Your task to perform on an android device: clear history in the chrome app Image 0: 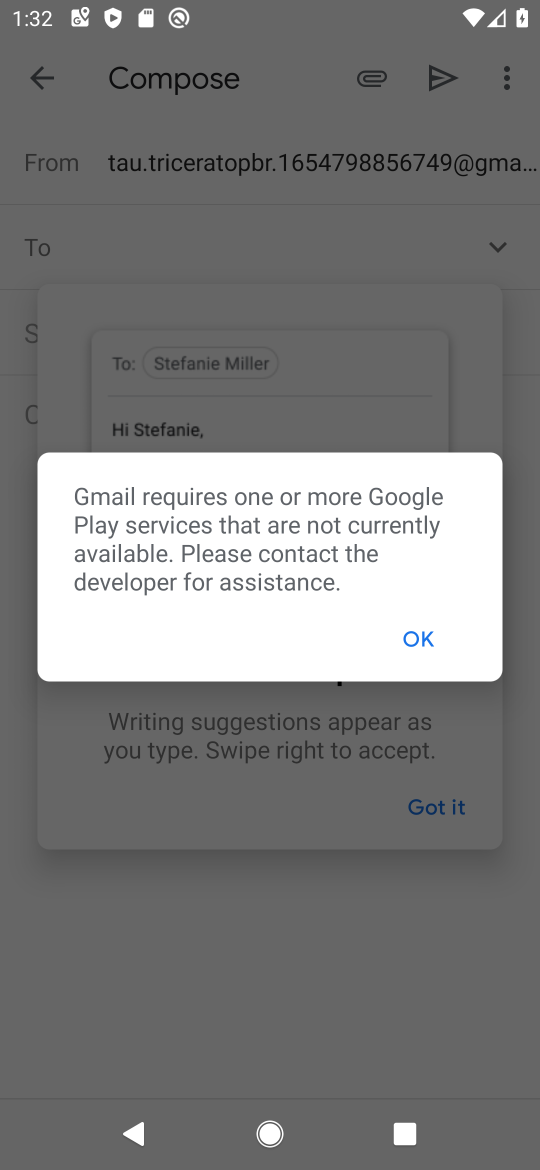
Step 0: press home button
Your task to perform on an android device: clear history in the chrome app Image 1: 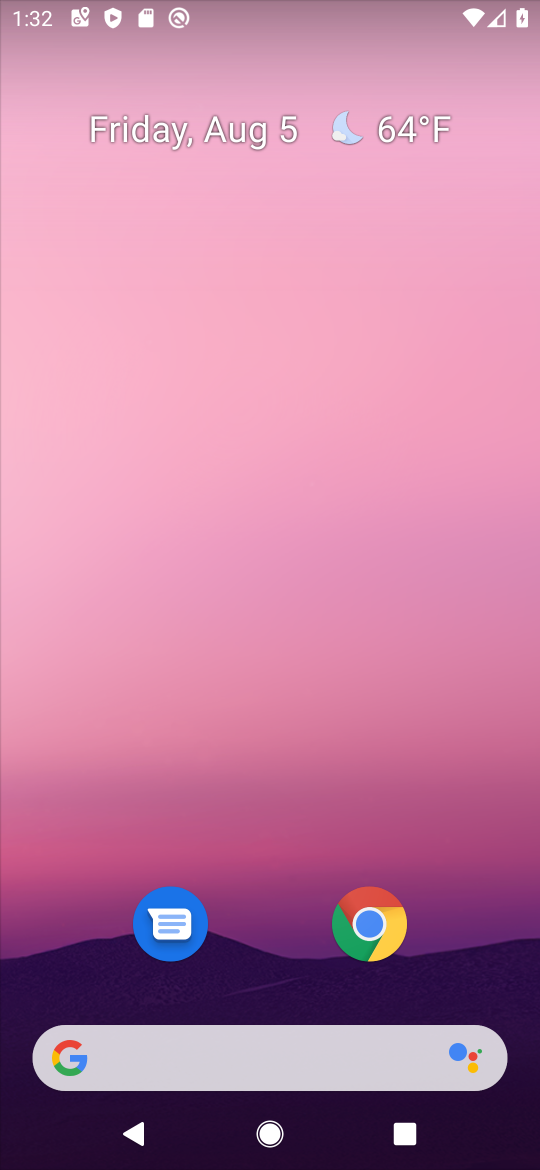
Step 1: click (368, 926)
Your task to perform on an android device: clear history in the chrome app Image 2: 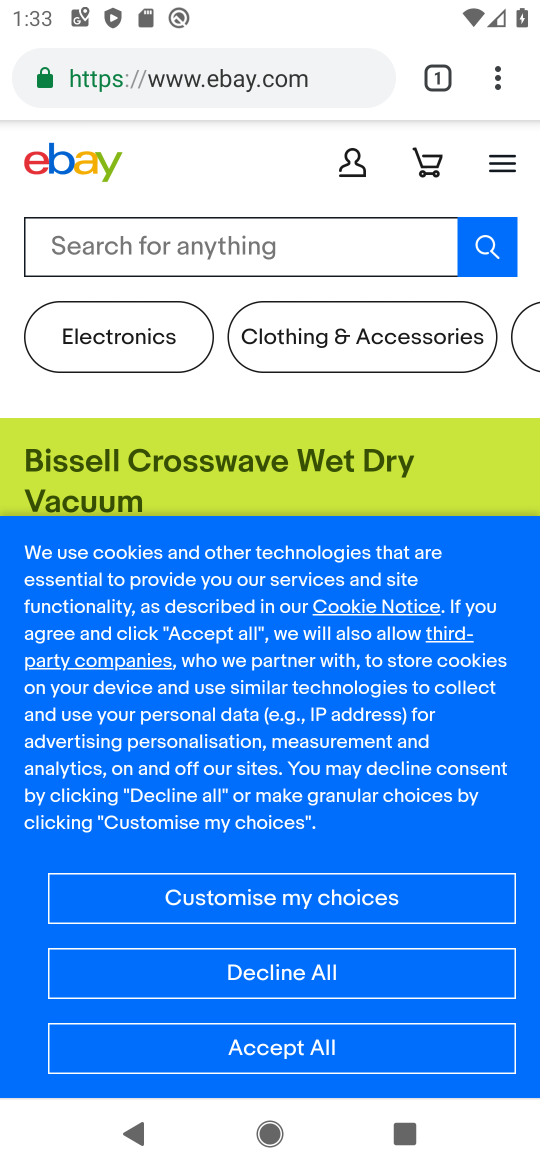
Step 2: click (508, 84)
Your task to perform on an android device: clear history in the chrome app Image 3: 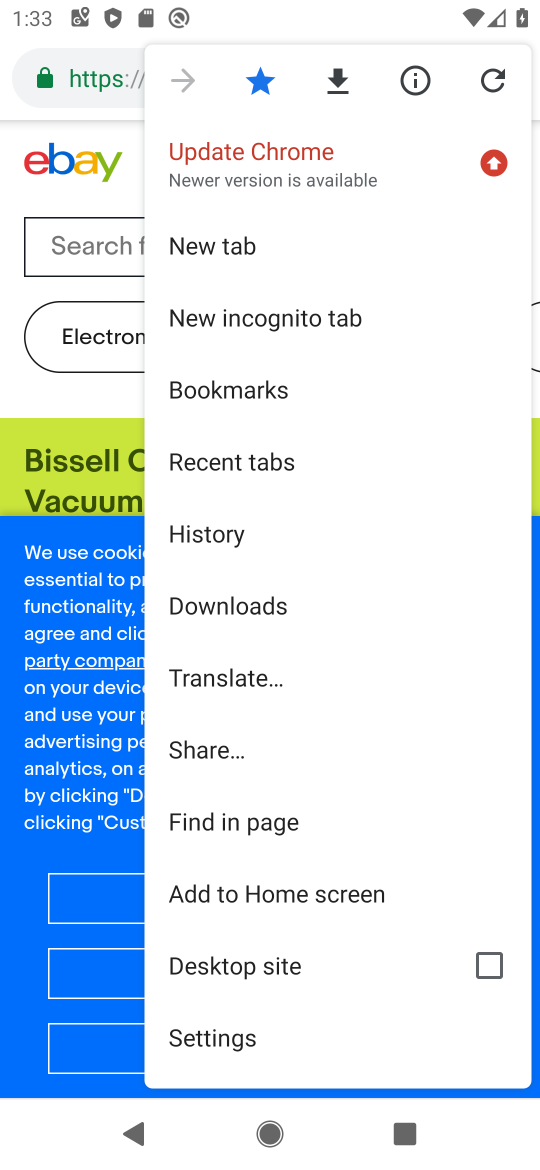
Step 3: click (229, 529)
Your task to perform on an android device: clear history in the chrome app Image 4: 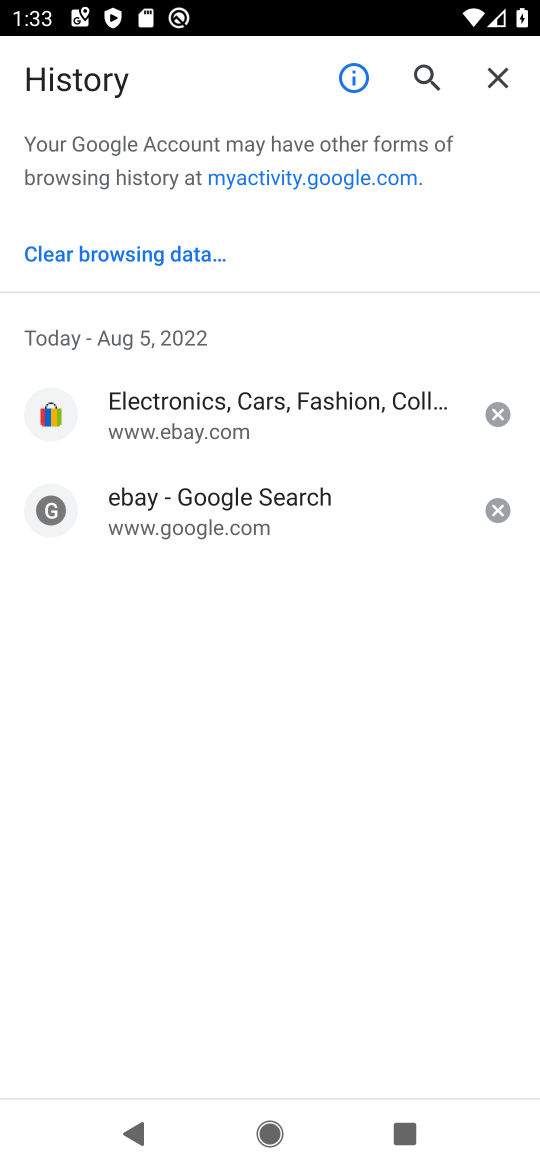
Step 4: click (136, 258)
Your task to perform on an android device: clear history in the chrome app Image 5: 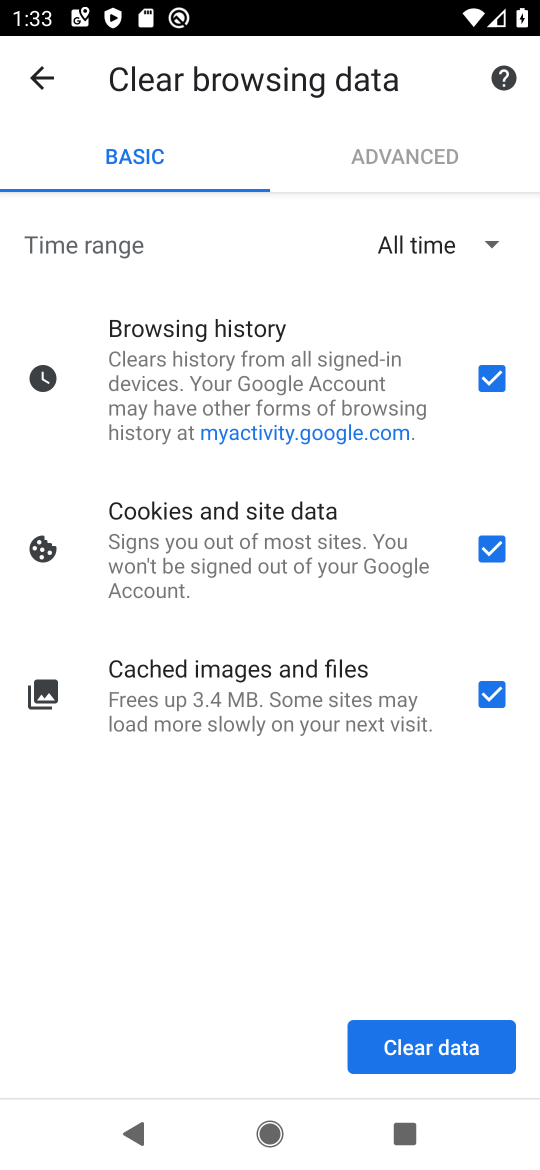
Step 5: click (448, 1053)
Your task to perform on an android device: clear history in the chrome app Image 6: 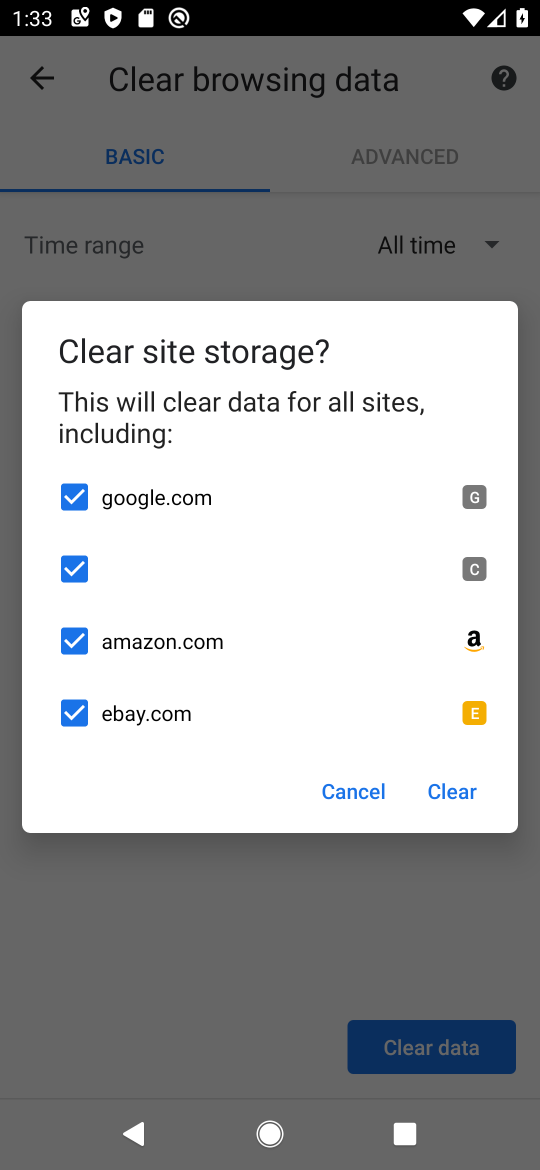
Step 6: click (438, 794)
Your task to perform on an android device: clear history in the chrome app Image 7: 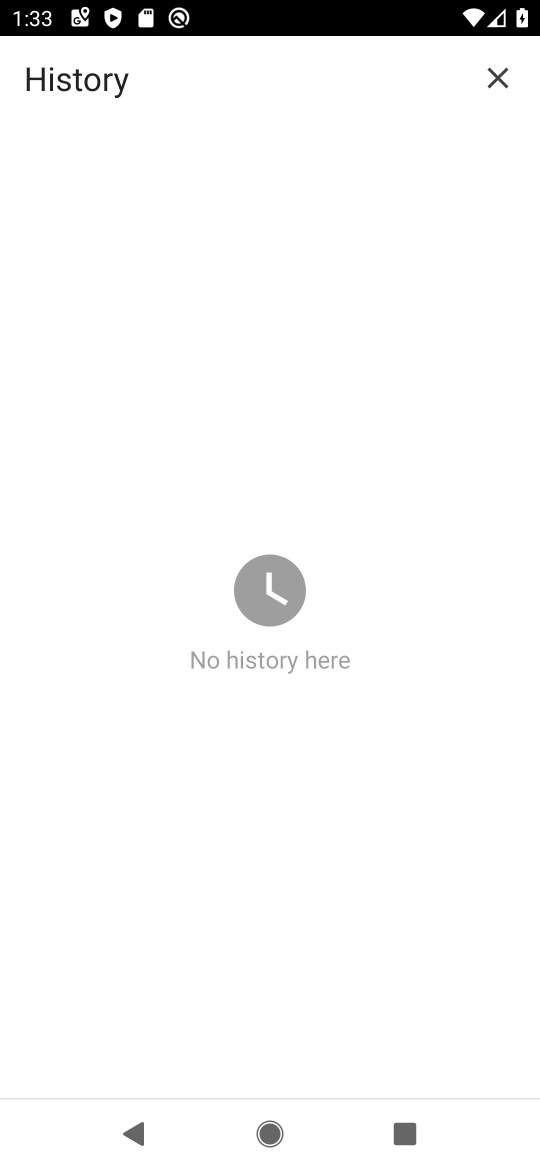
Step 7: task complete